Your task to perform on an android device: find which apps use the phone's location Image 0: 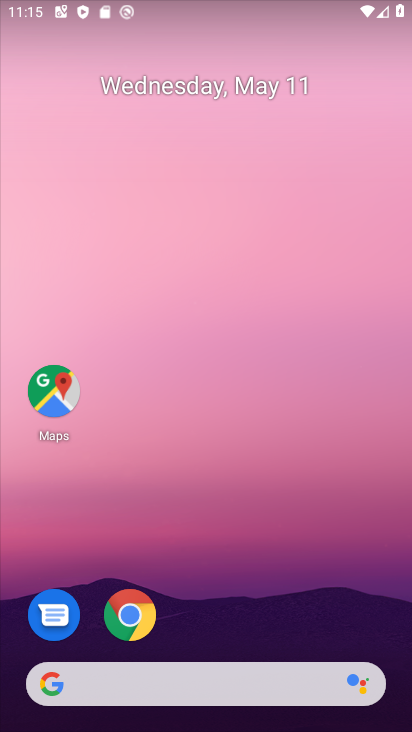
Step 0: drag from (269, 542) to (183, 33)
Your task to perform on an android device: find which apps use the phone's location Image 1: 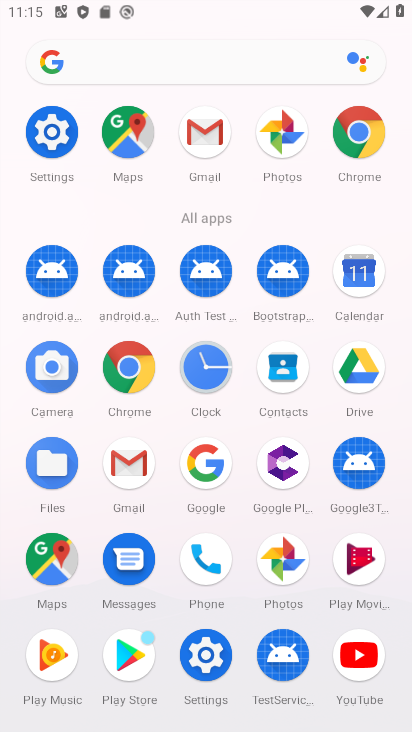
Step 1: click (56, 131)
Your task to perform on an android device: find which apps use the phone's location Image 2: 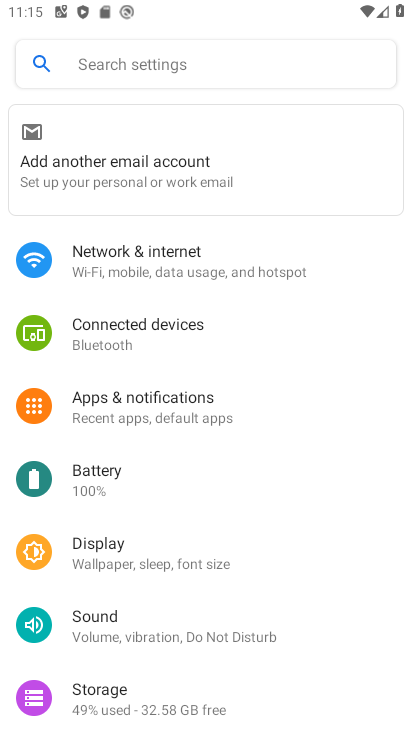
Step 2: drag from (151, 579) to (104, 312)
Your task to perform on an android device: find which apps use the phone's location Image 3: 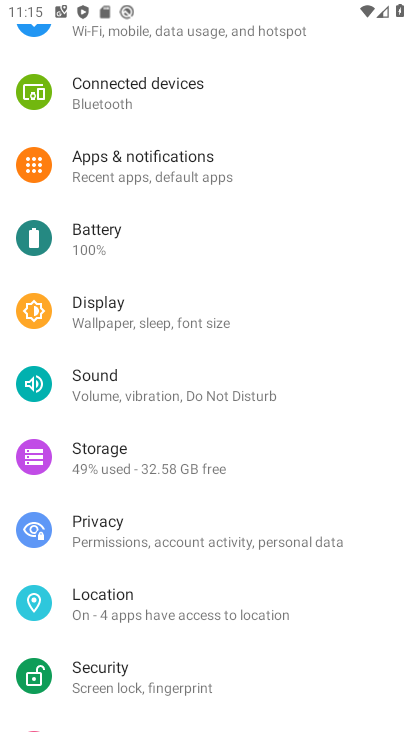
Step 3: click (111, 607)
Your task to perform on an android device: find which apps use the phone's location Image 4: 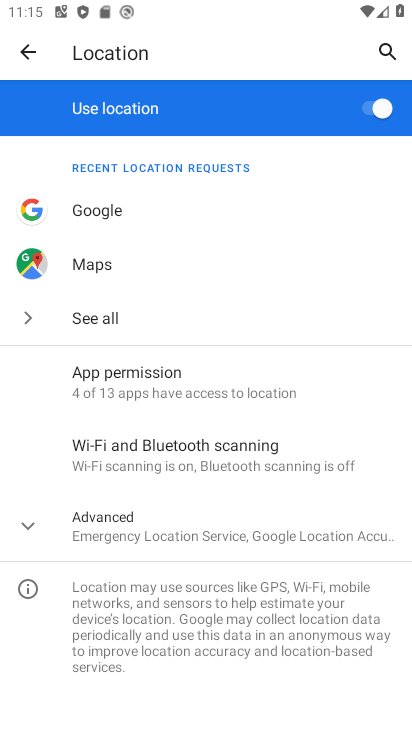
Step 4: click (84, 315)
Your task to perform on an android device: find which apps use the phone's location Image 5: 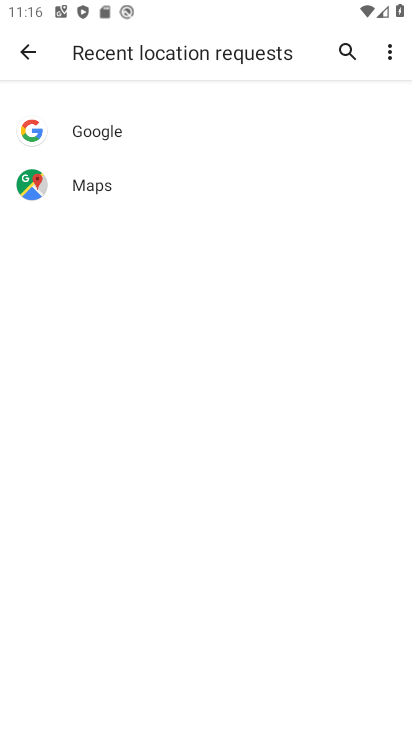
Step 5: task complete